Your task to perform on an android device: check data usage Image 0: 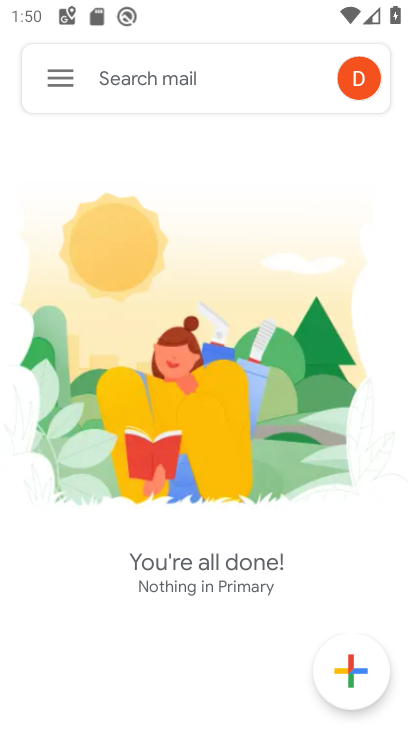
Step 0: press home button
Your task to perform on an android device: check data usage Image 1: 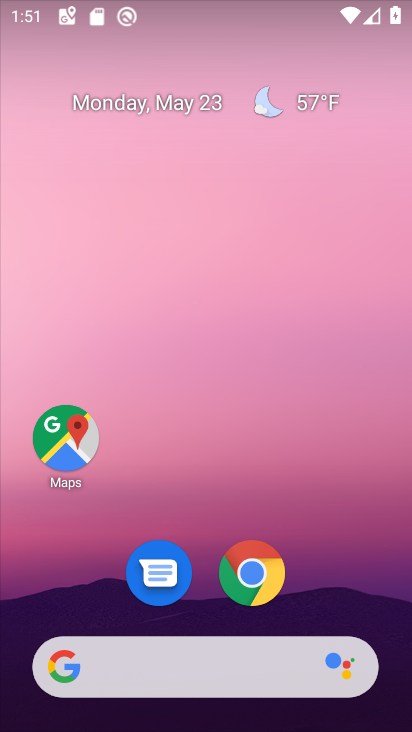
Step 1: drag from (277, 382) to (257, 152)
Your task to perform on an android device: check data usage Image 2: 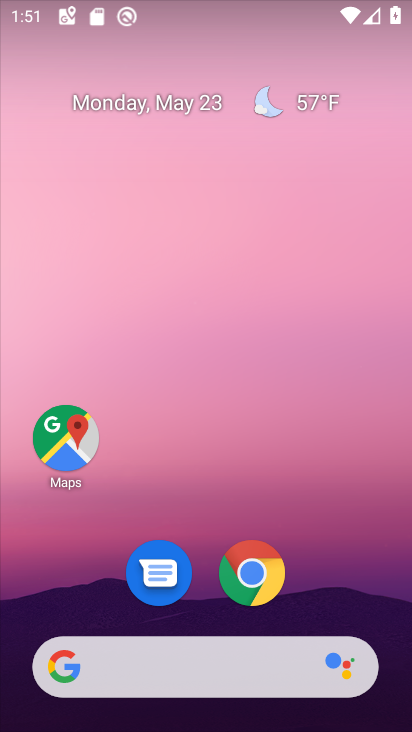
Step 2: drag from (320, 552) to (304, 45)
Your task to perform on an android device: check data usage Image 3: 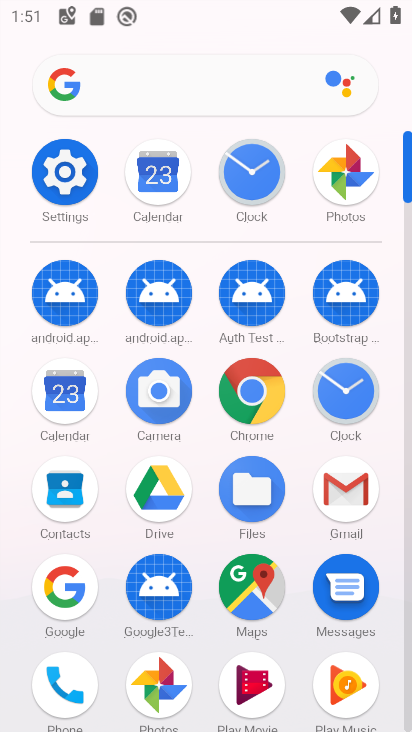
Step 3: click (66, 199)
Your task to perform on an android device: check data usage Image 4: 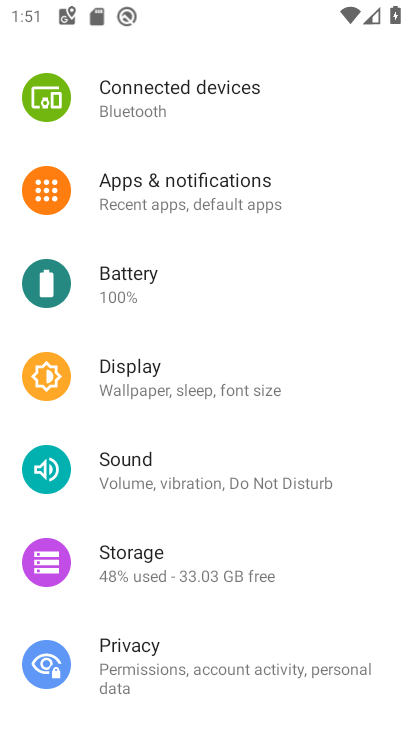
Step 4: drag from (220, 166) to (199, 633)
Your task to perform on an android device: check data usage Image 5: 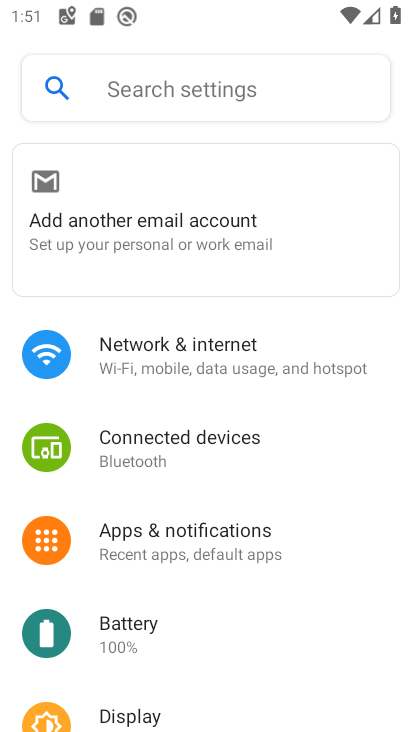
Step 5: click (131, 335)
Your task to perform on an android device: check data usage Image 6: 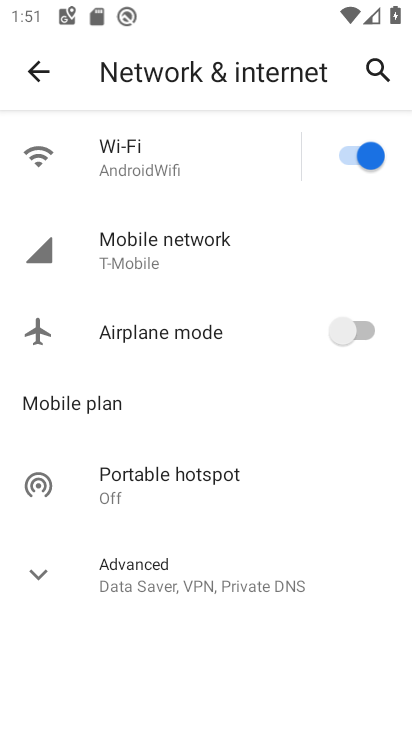
Step 6: click (122, 297)
Your task to perform on an android device: check data usage Image 7: 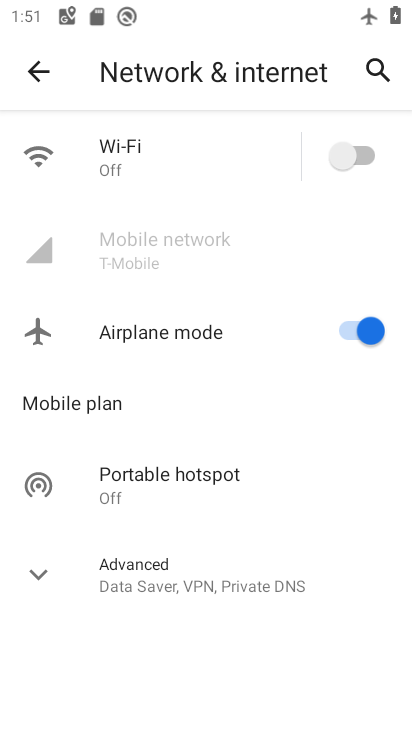
Step 7: click (53, 266)
Your task to perform on an android device: check data usage Image 8: 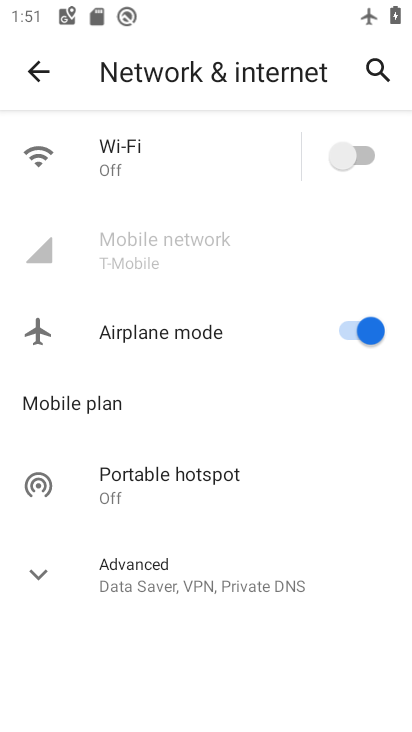
Step 8: click (50, 258)
Your task to perform on an android device: check data usage Image 9: 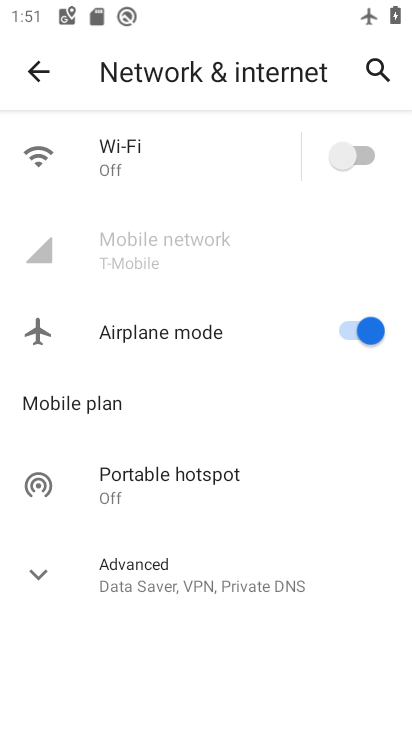
Step 9: click (50, 258)
Your task to perform on an android device: check data usage Image 10: 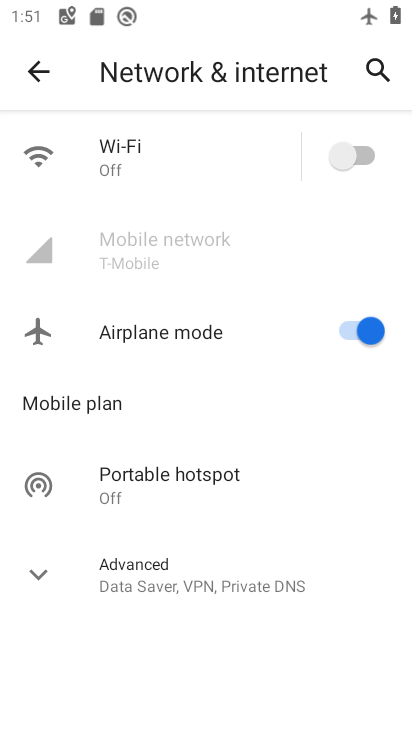
Step 10: task complete